Your task to perform on an android device: turn on the 24-hour format for clock Image 0: 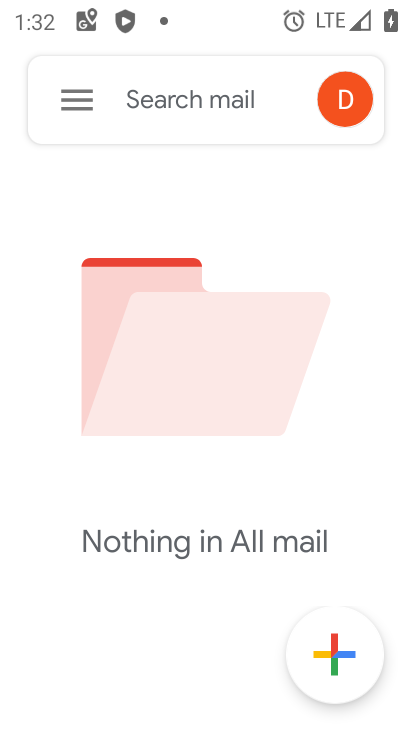
Step 0: press home button
Your task to perform on an android device: turn on the 24-hour format for clock Image 1: 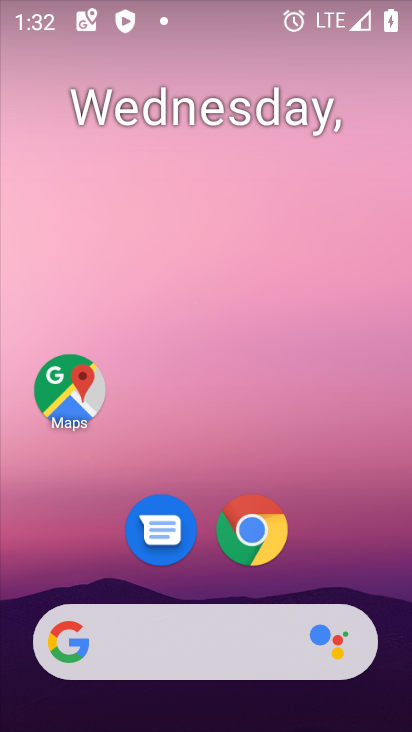
Step 1: drag from (381, 541) to (380, 185)
Your task to perform on an android device: turn on the 24-hour format for clock Image 2: 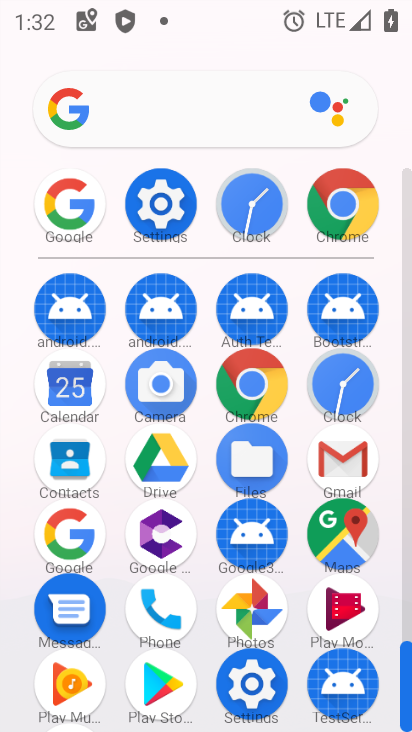
Step 2: click (168, 198)
Your task to perform on an android device: turn on the 24-hour format for clock Image 3: 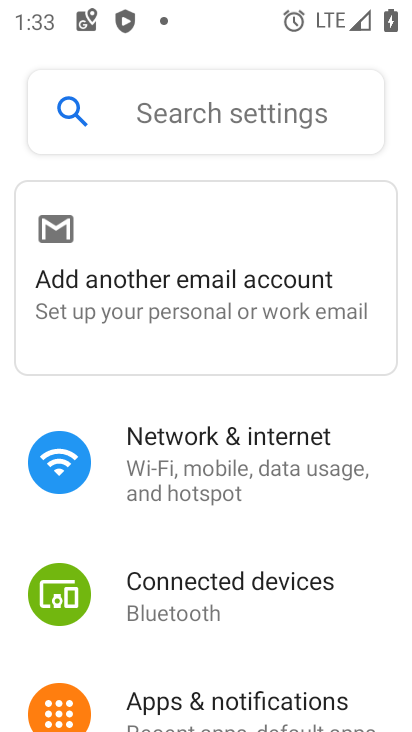
Step 3: press home button
Your task to perform on an android device: turn on the 24-hour format for clock Image 4: 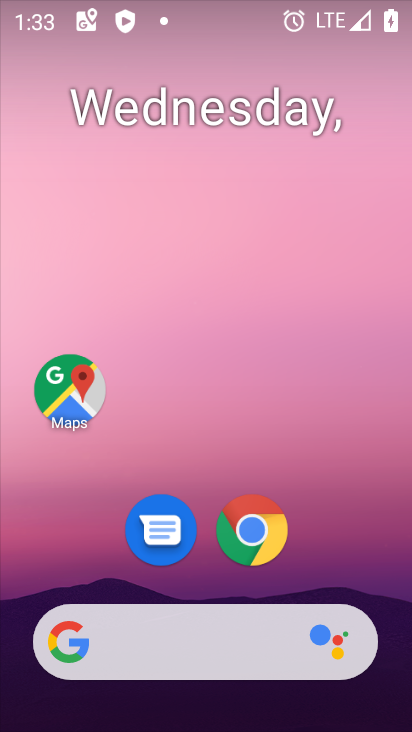
Step 4: drag from (351, 553) to (363, 208)
Your task to perform on an android device: turn on the 24-hour format for clock Image 5: 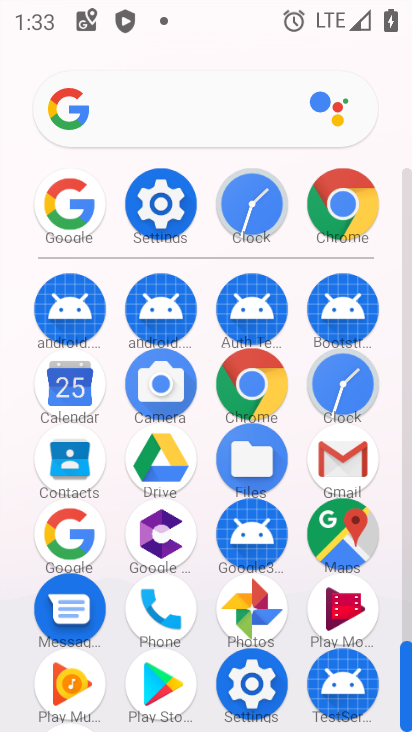
Step 5: click (345, 374)
Your task to perform on an android device: turn on the 24-hour format for clock Image 6: 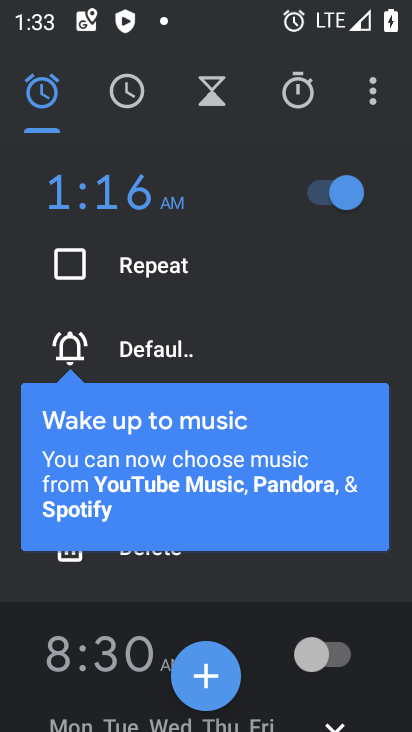
Step 6: click (365, 88)
Your task to perform on an android device: turn on the 24-hour format for clock Image 7: 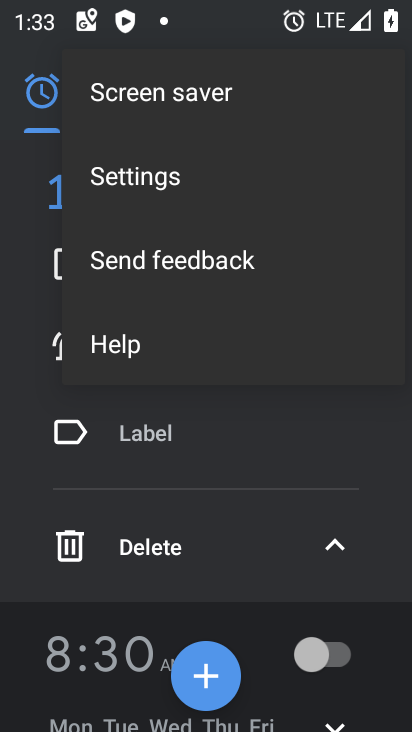
Step 7: click (196, 190)
Your task to perform on an android device: turn on the 24-hour format for clock Image 8: 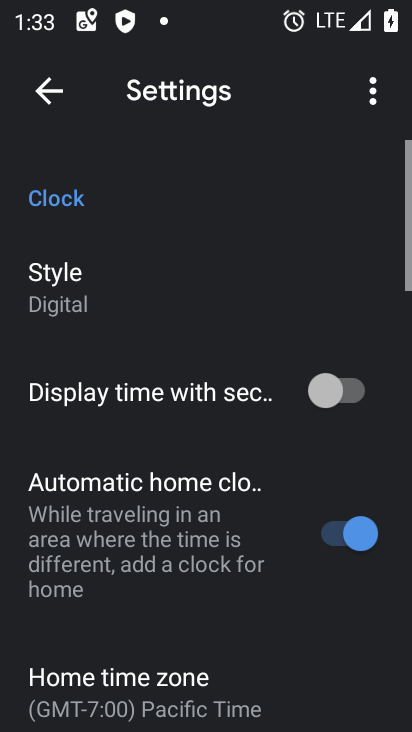
Step 8: drag from (193, 588) to (237, 167)
Your task to perform on an android device: turn on the 24-hour format for clock Image 9: 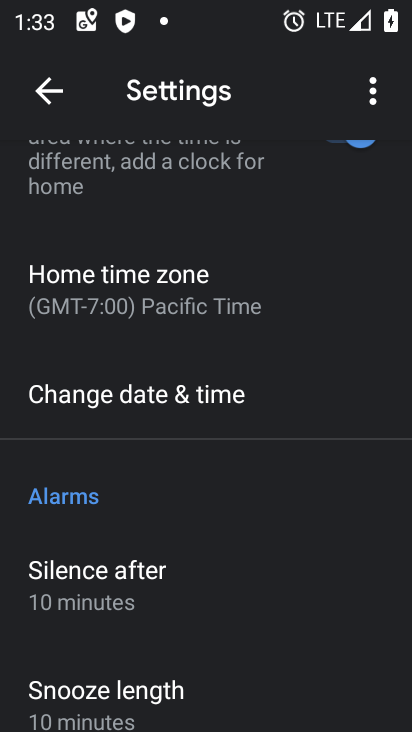
Step 9: click (206, 417)
Your task to perform on an android device: turn on the 24-hour format for clock Image 10: 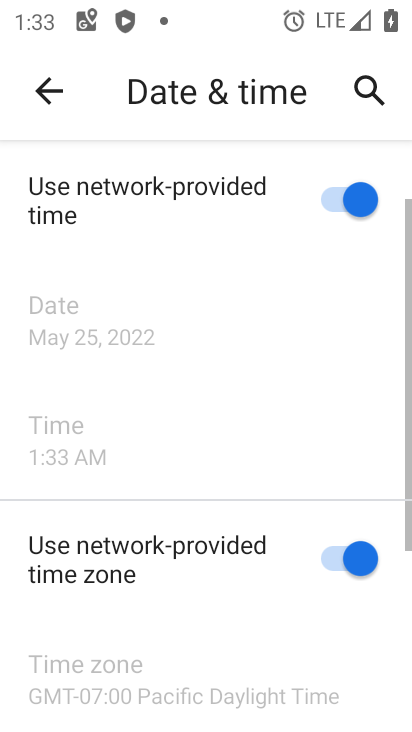
Step 10: drag from (211, 610) to (222, 323)
Your task to perform on an android device: turn on the 24-hour format for clock Image 11: 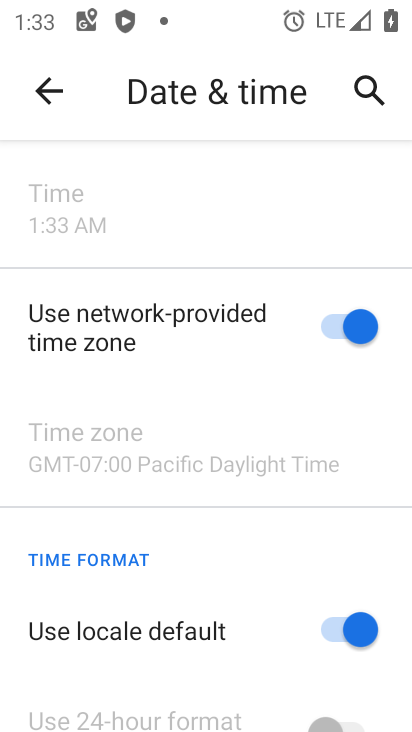
Step 11: drag from (212, 668) to (230, 348)
Your task to perform on an android device: turn on the 24-hour format for clock Image 12: 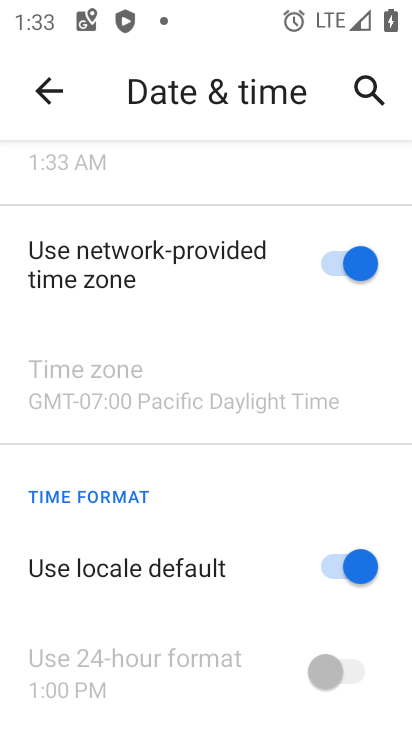
Step 12: click (319, 568)
Your task to perform on an android device: turn on the 24-hour format for clock Image 13: 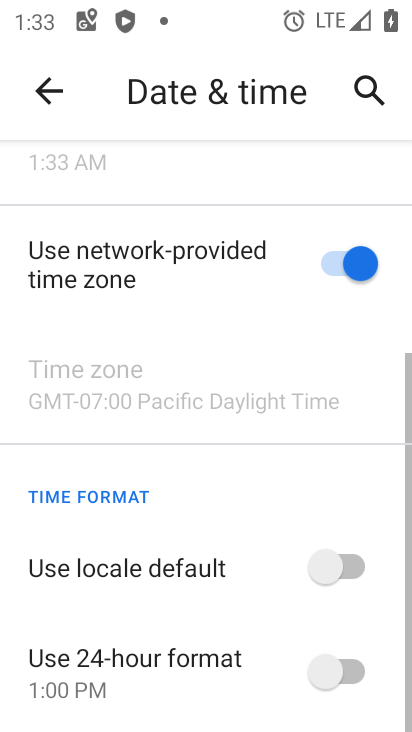
Step 13: click (351, 676)
Your task to perform on an android device: turn on the 24-hour format for clock Image 14: 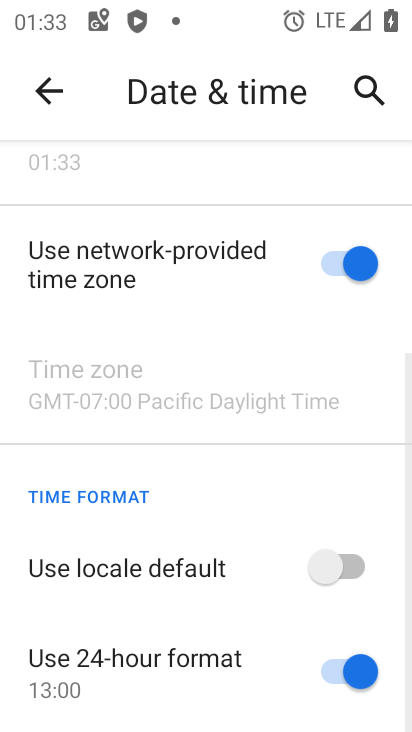
Step 14: task complete